Your task to perform on an android device: Go to Yahoo.com Image 0: 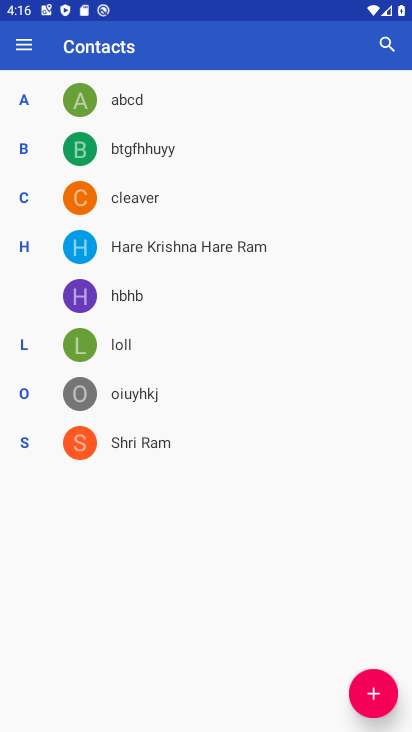
Step 0: press home button
Your task to perform on an android device: Go to Yahoo.com Image 1: 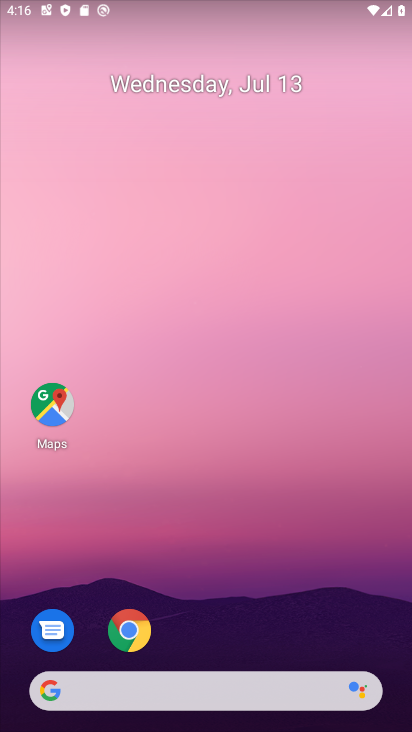
Step 1: drag from (240, 682) to (265, 113)
Your task to perform on an android device: Go to Yahoo.com Image 2: 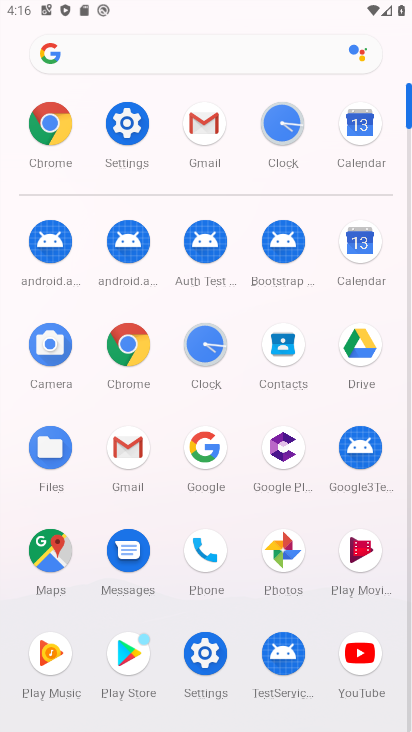
Step 2: click (133, 343)
Your task to perform on an android device: Go to Yahoo.com Image 3: 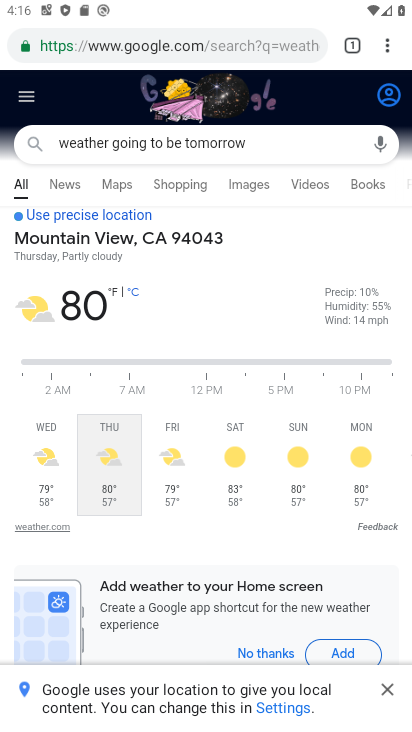
Step 3: drag from (386, 43) to (275, 81)
Your task to perform on an android device: Go to Yahoo.com Image 4: 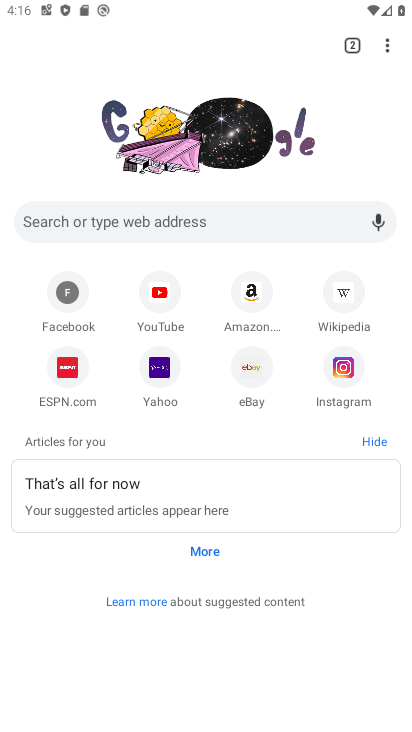
Step 4: click (166, 369)
Your task to perform on an android device: Go to Yahoo.com Image 5: 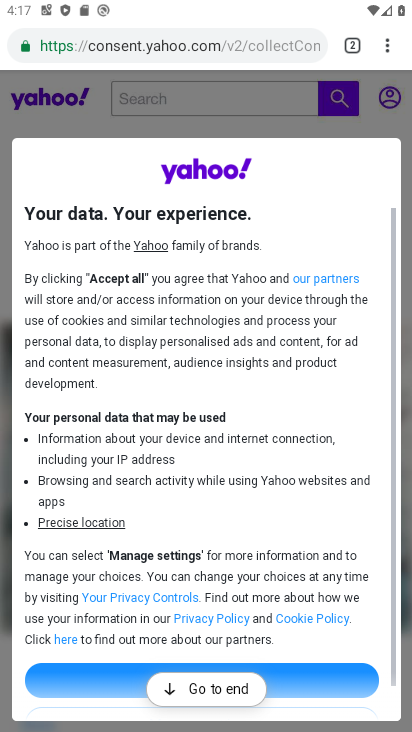
Step 5: task complete